Your task to perform on an android device: What's the weather today? Image 0: 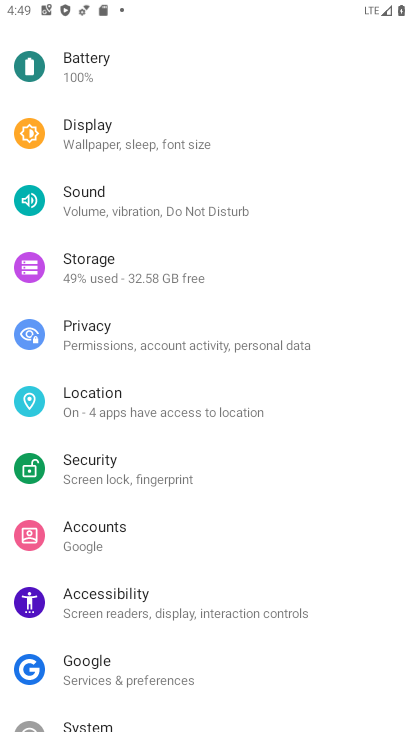
Step 0: press home button
Your task to perform on an android device: What's the weather today? Image 1: 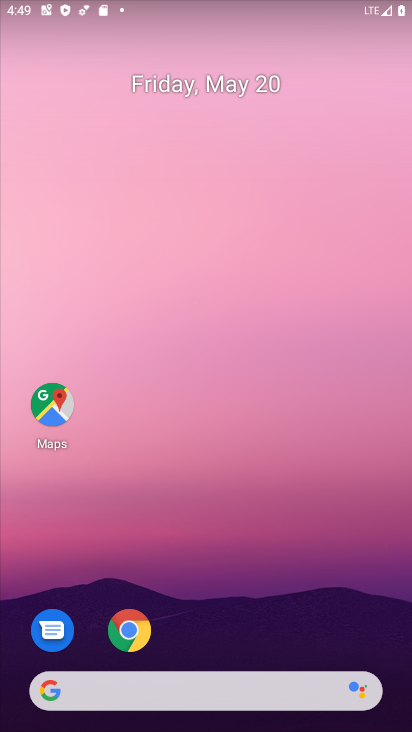
Step 1: click (227, 697)
Your task to perform on an android device: What's the weather today? Image 2: 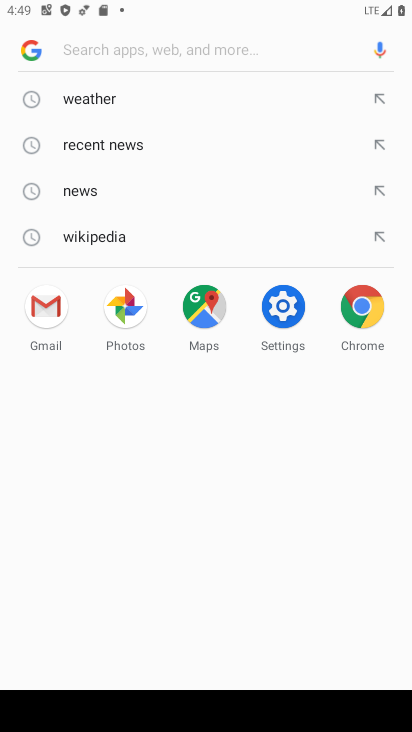
Step 2: click (90, 94)
Your task to perform on an android device: What's the weather today? Image 3: 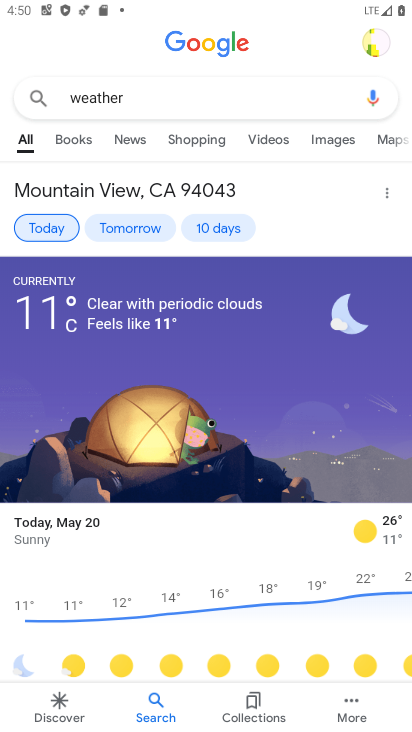
Step 3: click (29, 223)
Your task to perform on an android device: What's the weather today? Image 4: 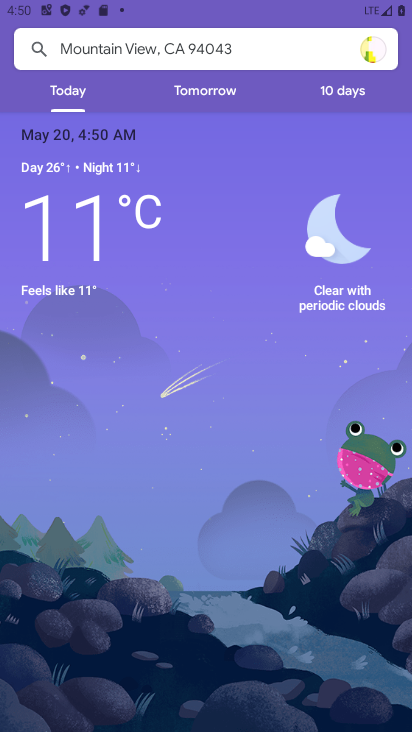
Step 4: task complete